Your task to perform on an android device: turn on data saver in the chrome app Image 0: 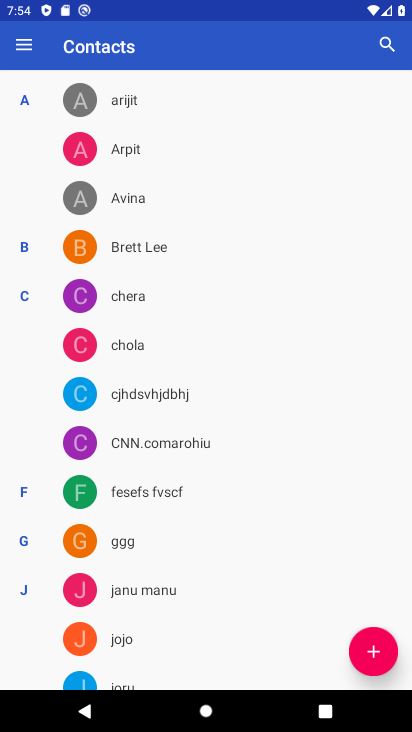
Step 0: press home button
Your task to perform on an android device: turn on data saver in the chrome app Image 1: 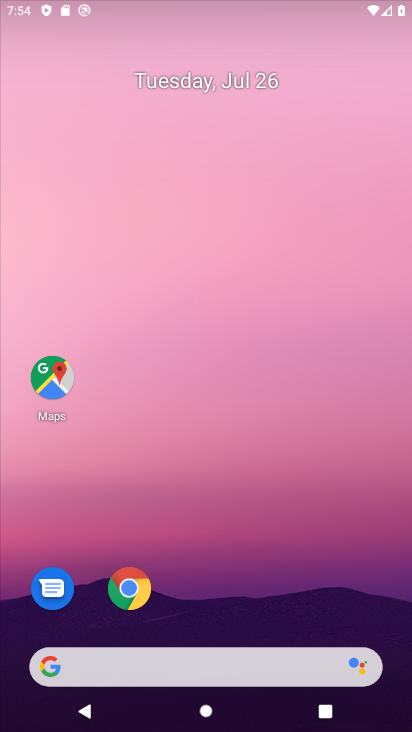
Step 1: drag from (306, 590) to (311, 75)
Your task to perform on an android device: turn on data saver in the chrome app Image 2: 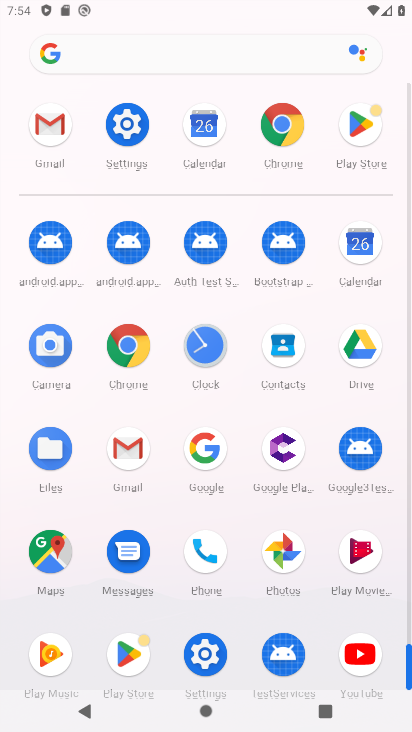
Step 2: click (284, 127)
Your task to perform on an android device: turn on data saver in the chrome app Image 3: 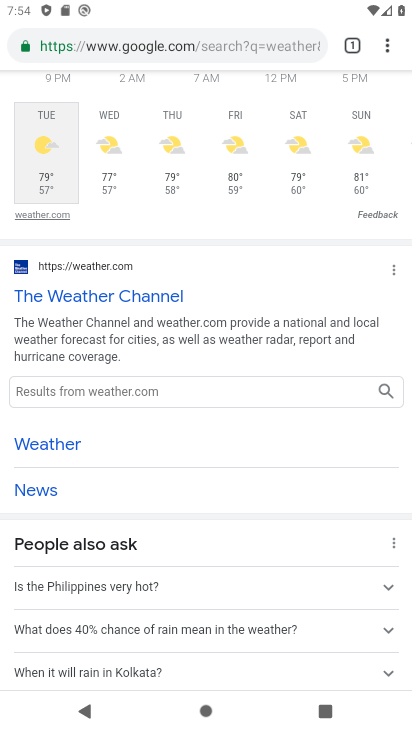
Step 3: drag from (392, 39) to (224, 519)
Your task to perform on an android device: turn on data saver in the chrome app Image 4: 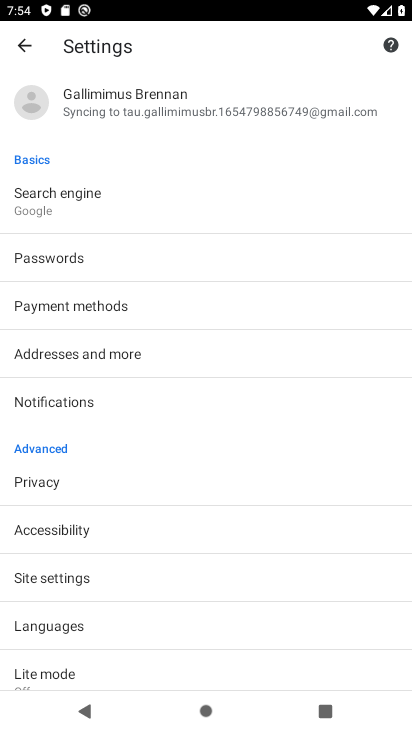
Step 4: drag from (173, 652) to (346, 248)
Your task to perform on an android device: turn on data saver in the chrome app Image 5: 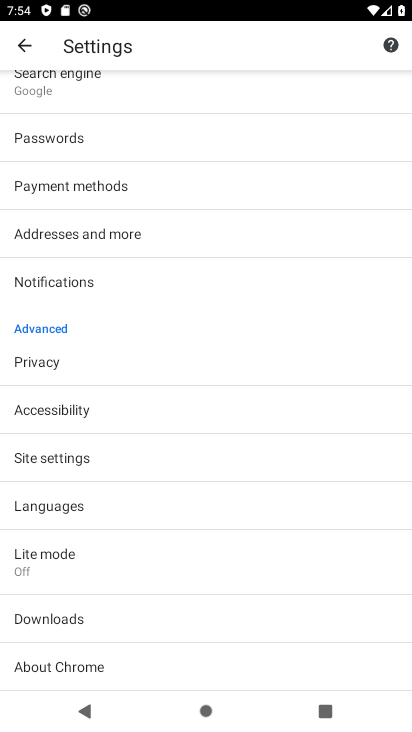
Step 5: click (78, 551)
Your task to perform on an android device: turn on data saver in the chrome app Image 6: 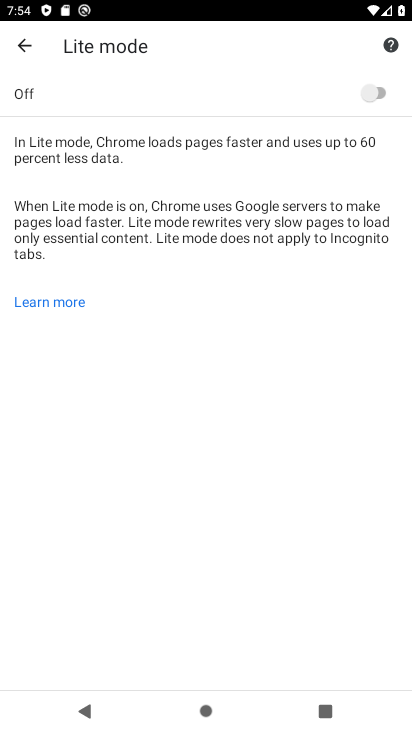
Step 6: click (384, 87)
Your task to perform on an android device: turn on data saver in the chrome app Image 7: 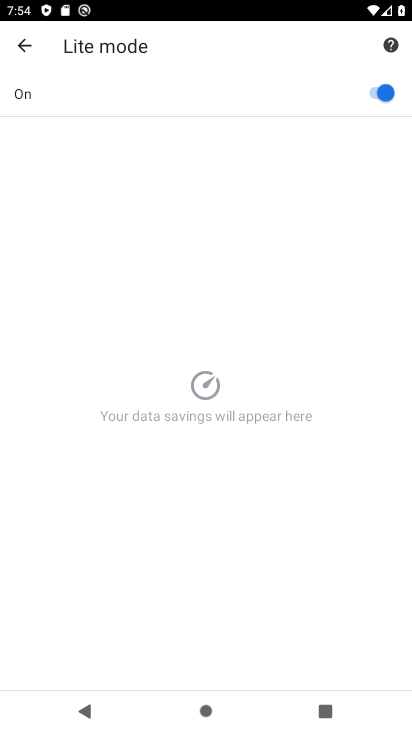
Step 7: task complete